Your task to perform on an android device: Open sound settings Image 0: 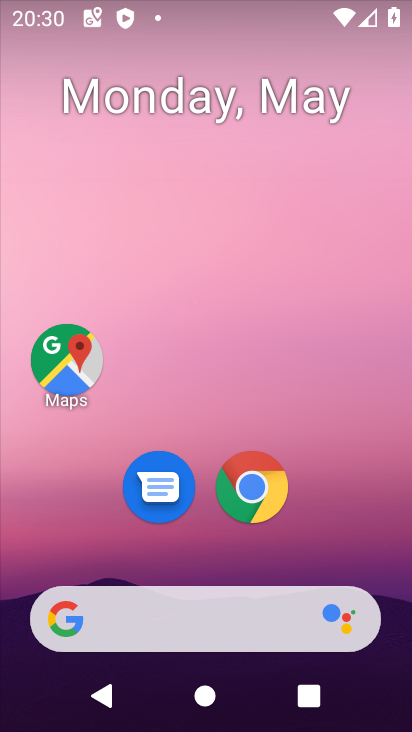
Step 0: drag from (368, 583) to (383, 288)
Your task to perform on an android device: Open sound settings Image 1: 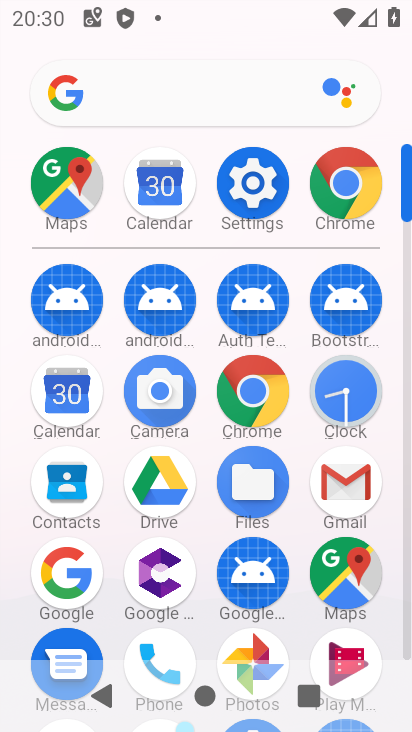
Step 1: click (267, 214)
Your task to perform on an android device: Open sound settings Image 2: 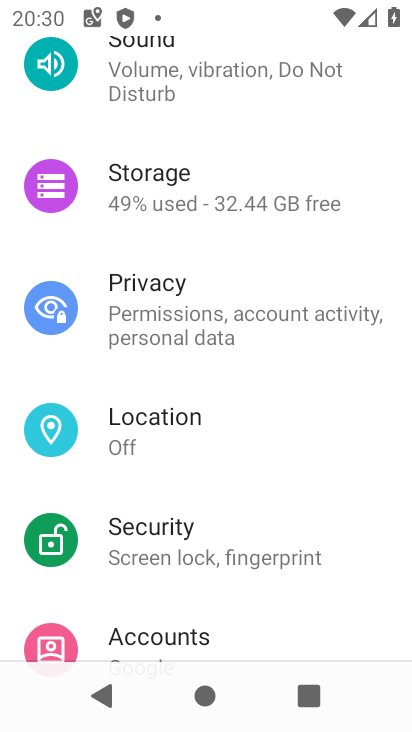
Step 2: drag from (368, 194) to (363, 287)
Your task to perform on an android device: Open sound settings Image 3: 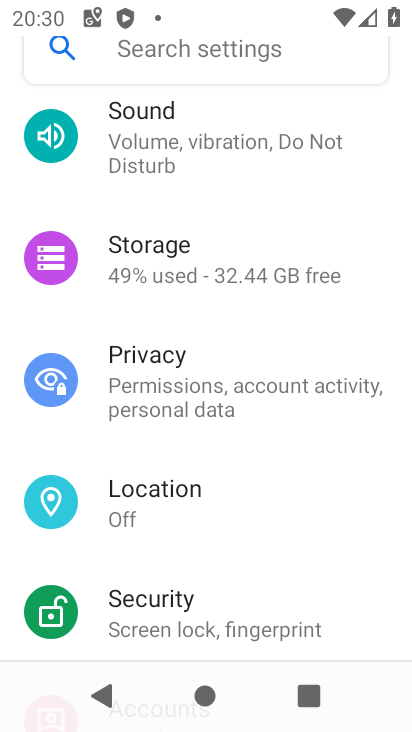
Step 3: drag from (374, 182) to (359, 298)
Your task to perform on an android device: Open sound settings Image 4: 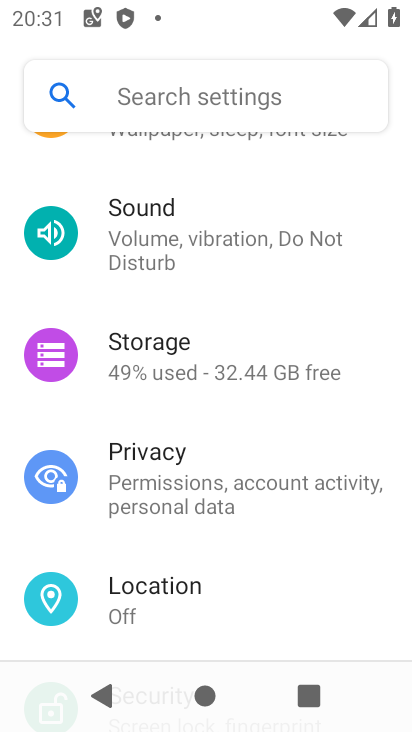
Step 4: drag from (374, 176) to (367, 306)
Your task to perform on an android device: Open sound settings Image 5: 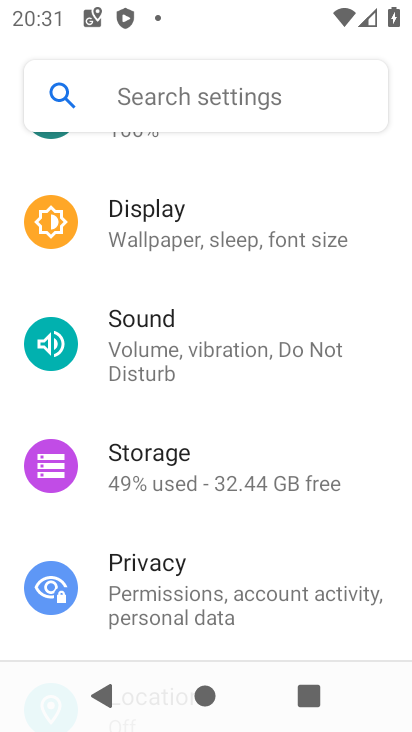
Step 5: drag from (368, 185) to (367, 287)
Your task to perform on an android device: Open sound settings Image 6: 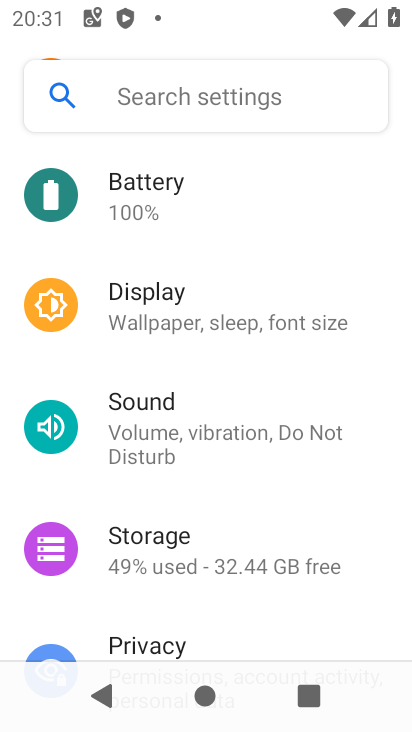
Step 6: drag from (369, 164) to (368, 292)
Your task to perform on an android device: Open sound settings Image 7: 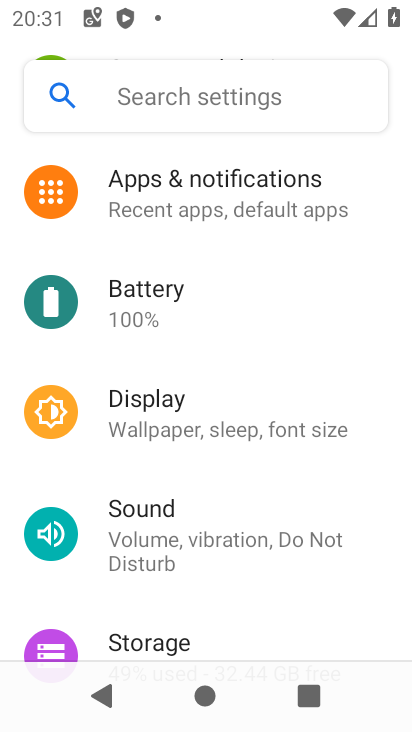
Step 7: drag from (366, 166) to (366, 301)
Your task to perform on an android device: Open sound settings Image 8: 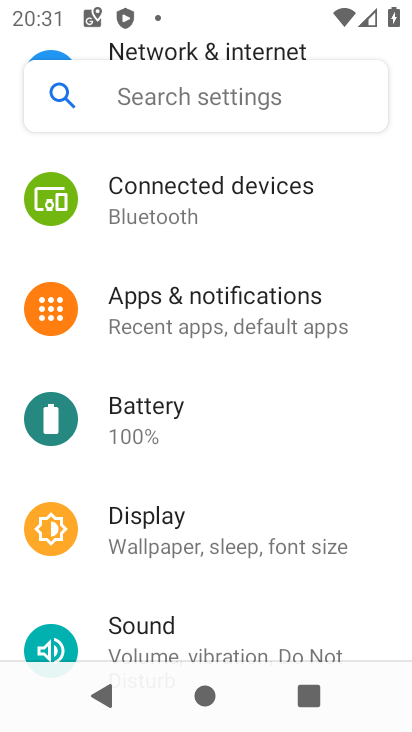
Step 8: drag from (383, 176) to (387, 303)
Your task to perform on an android device: Open sound settings Image 9: 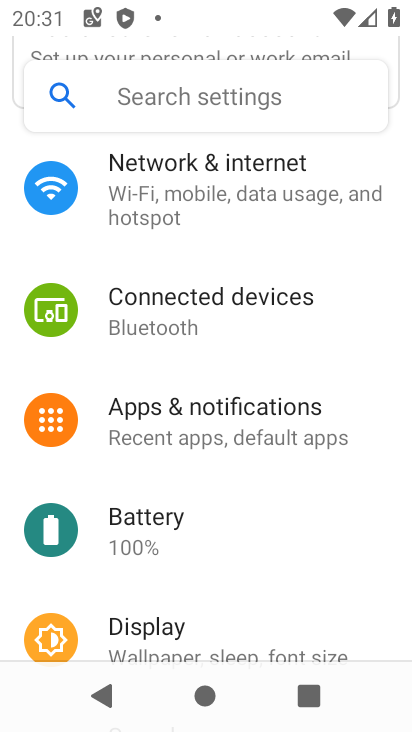
Step 9: drag from (387, 164) to (378, 329)
Your task to perform on an android device: Open sound settings Image 10: 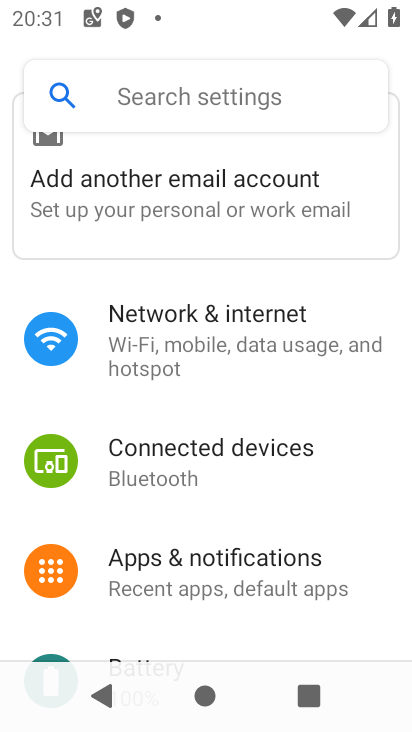
Step 10: drag from (371, 453) to (376, 339)
Your task to perform on an android device: Open sound settings Image 11: 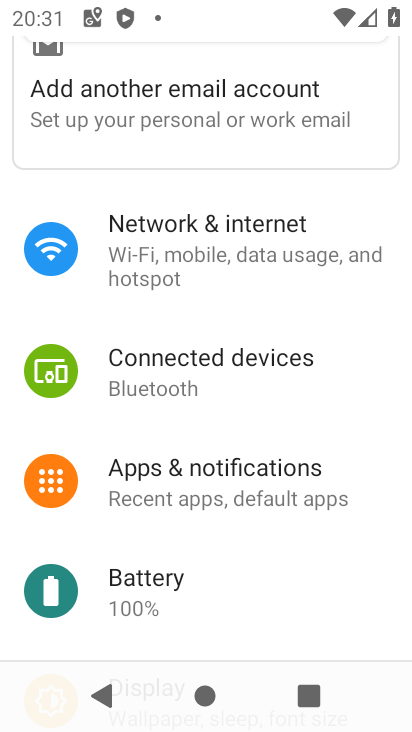
Step 11: drag from (363, 432) to (363, 313)
Your task to perform on an android device: Open sound settings Image 12: 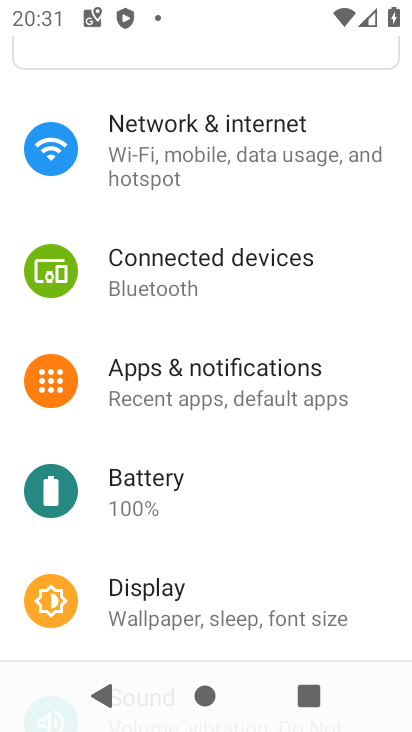
Step 12: drag from (356, 455) to (366, 347)
Your task to perform on an android device: Open sound settings Image 13: 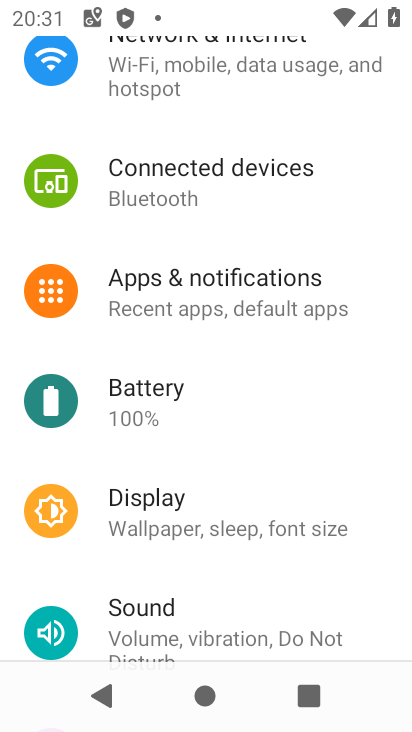
Step 13: drag from (363, 454) to (373, 347)
Your task to perform on an android device: Open sound settings Image 14: 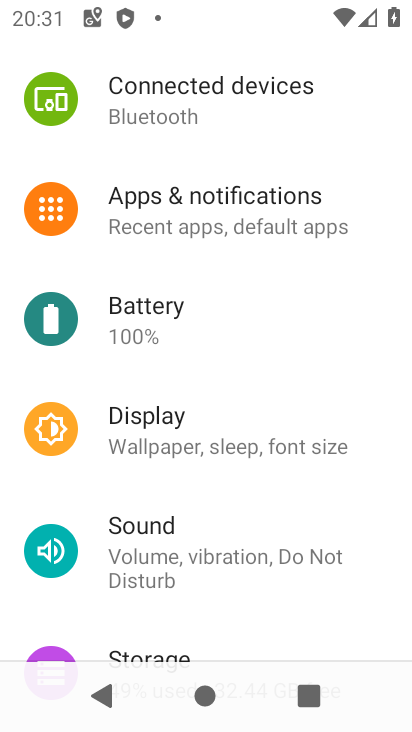
Step 14: drag from (364, 469) to (372, 332)
Your task to perform on an android device: Open sound settings Image 15: 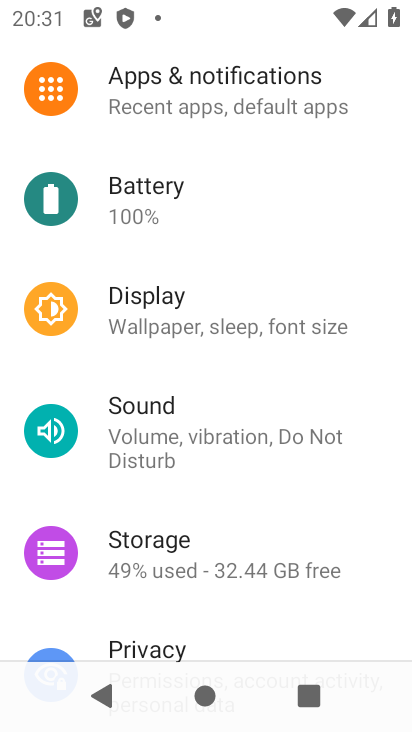
Step 15: drag from (360, 492) to (371, 376)
Your task to perform on an android device: Open sound settings Image 16: 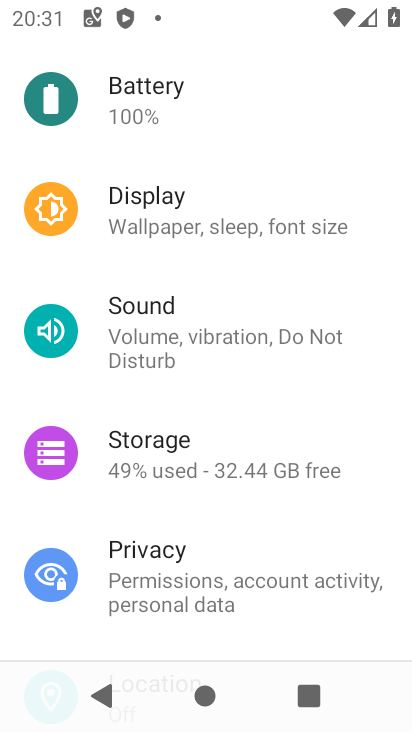
Step 16: click (314, 364)
Your task to perform on an android device: Open sound settings Image 17: 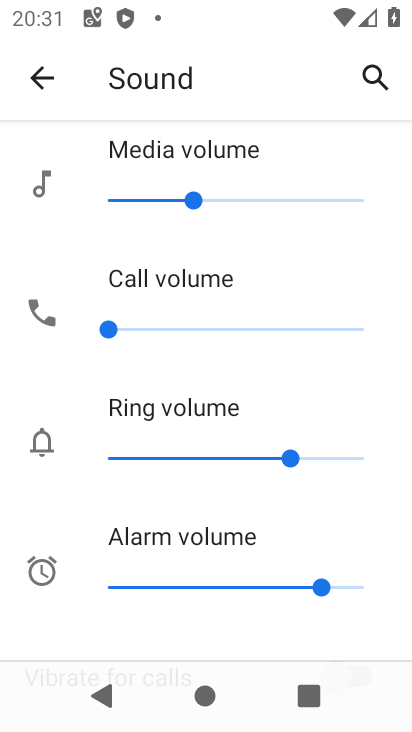
Step 17: task complete